Your task to perform on an android device: Go to internet settings Image 0: 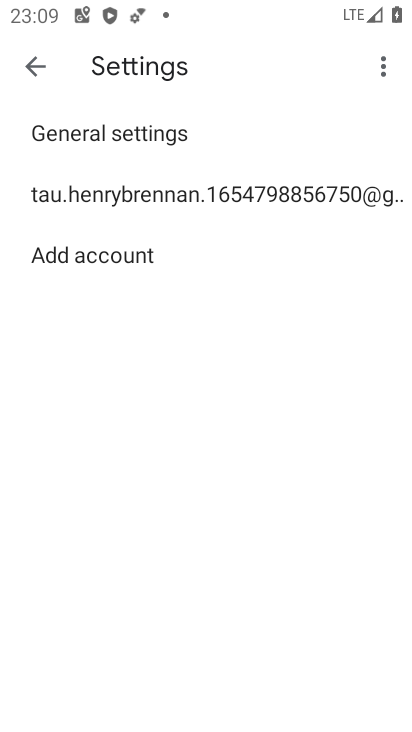
Step 0: press home button
Your task to perform on an android device: Go to internet settings Image 1: 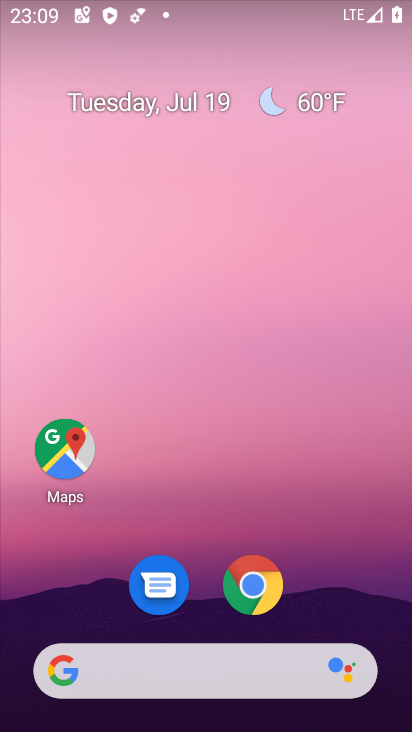
Step 1: drag from (308, 564) to (348, 57)
Your task to perform on an android device: Go to internet settings Image 2: 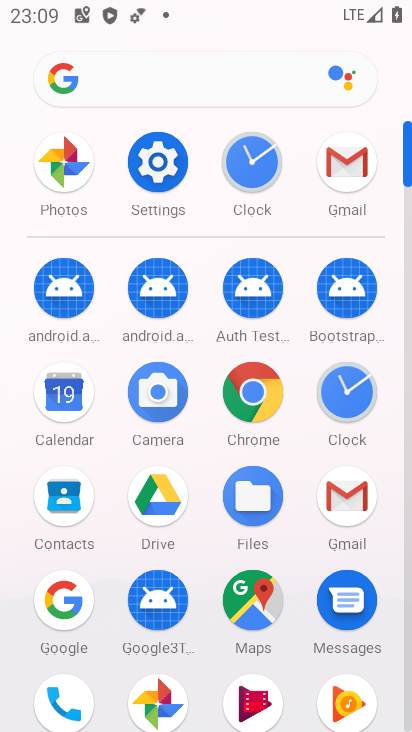
Step 2: click (168, 155)
Your task to perform on an android device: Go to internet settings Image 3: 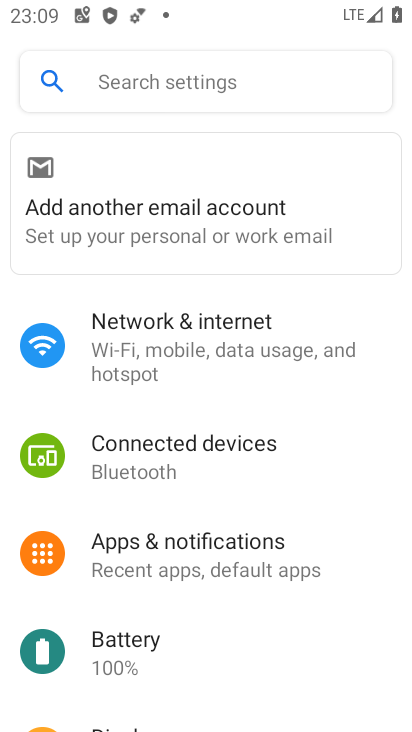
Step 3: click (178, 341)
Your task to perform on an android device: Go to internet settings Image 4: 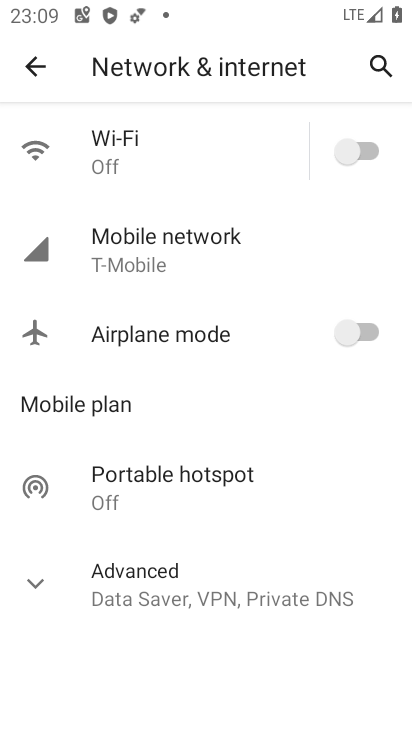
Step 4: task complete